Your task to perform on an android device: Open my contact list Image 0: 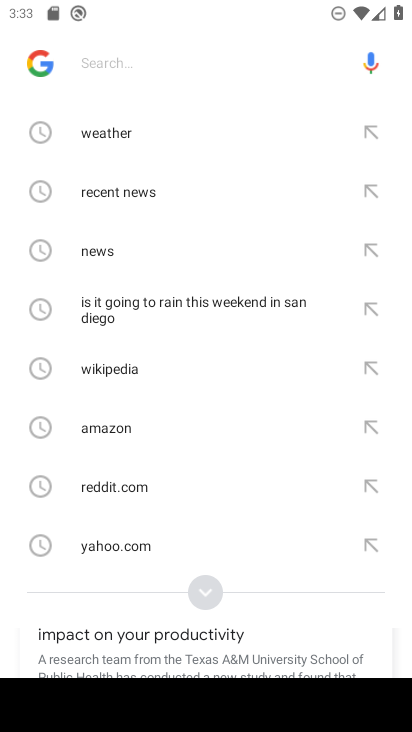
Step 0: press back button
Your task to perform on an android device: Open my contact list Image 1: 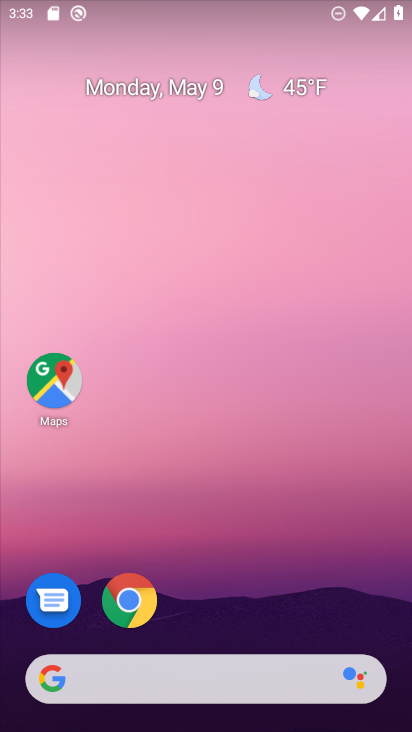
Step 1: drag from (260, 458) to (194, 30)
Your task to perform on an android device: Open my contact list Image 2: 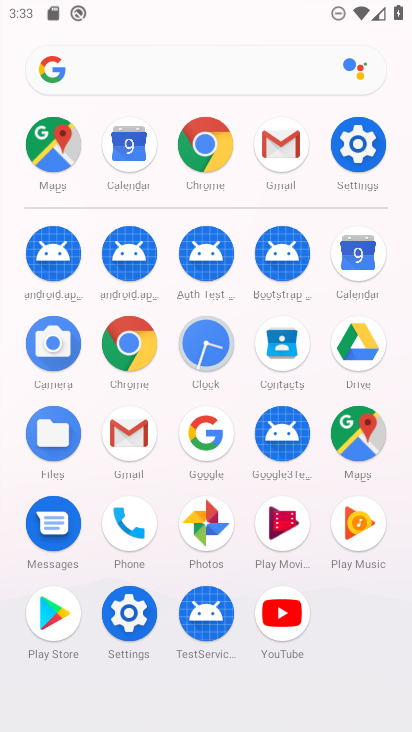
Step 2: drag from (27, 553) to (18, 234)
Your task to perform on an android device: Open my contact list Image 3: 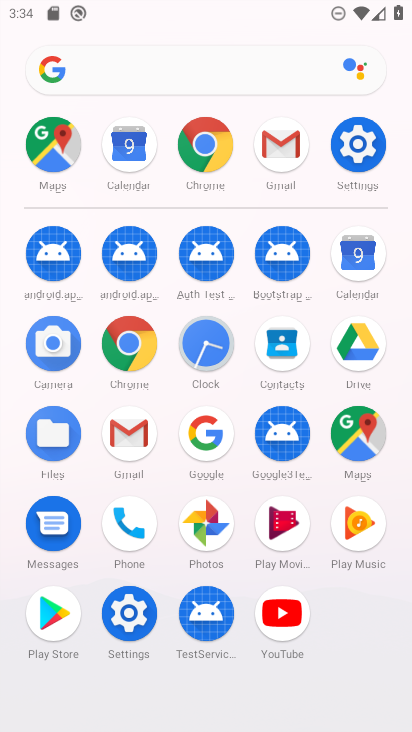
Step 3: click (283, 342)
Your task to perform on an android device: Open my contact list Image 4: 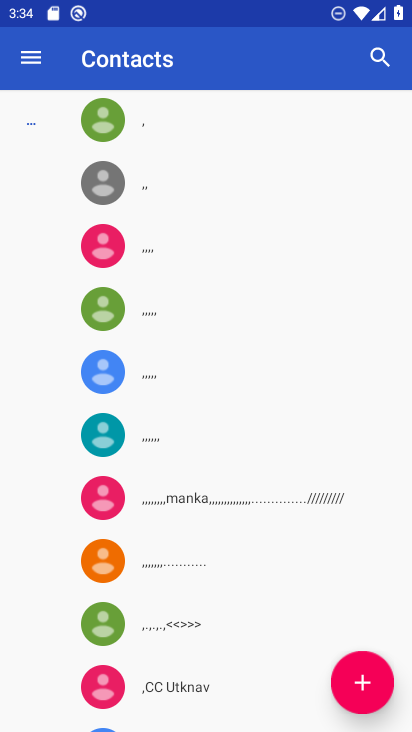
Step 4: task complete